Your task to perform on an android device: Find coffee shops on Maps Image 0: 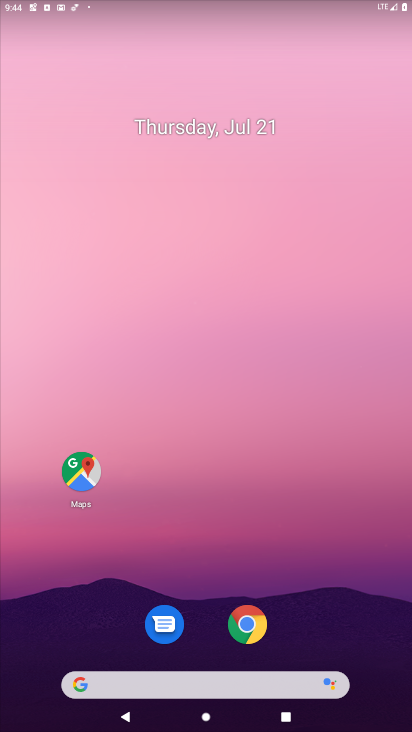
Step 0: click (90, 460)
Your task to perform on an android device: Find coffee shops on Maps Image 1: 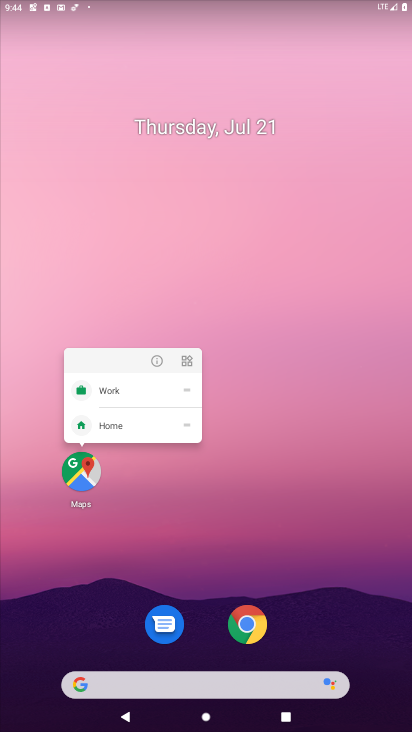
Step 1: click (85, 457)
Your task to perform on an android device: Find coffee shops on Maps Image 2: 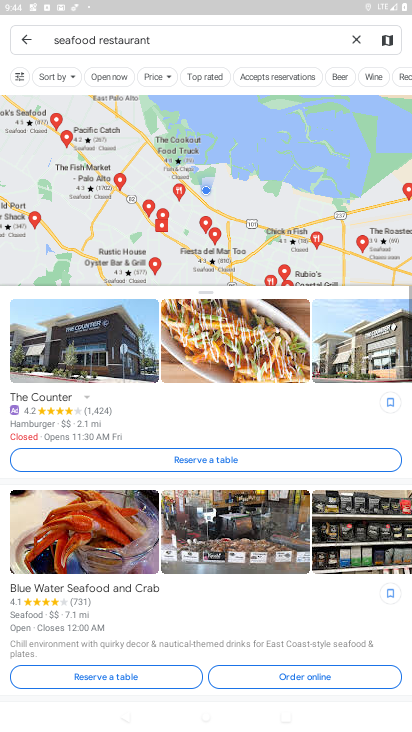
Step 2: click (359, 41)
Your task to perform on an android device: Find coffee shops on Maps Image 3: 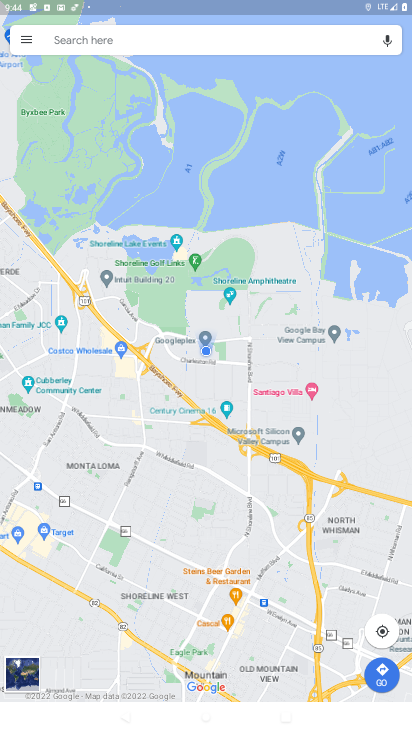
Step 3: click (181, 45)
Your task to perform on an android device: Find coffee shops on Maps Image 4: 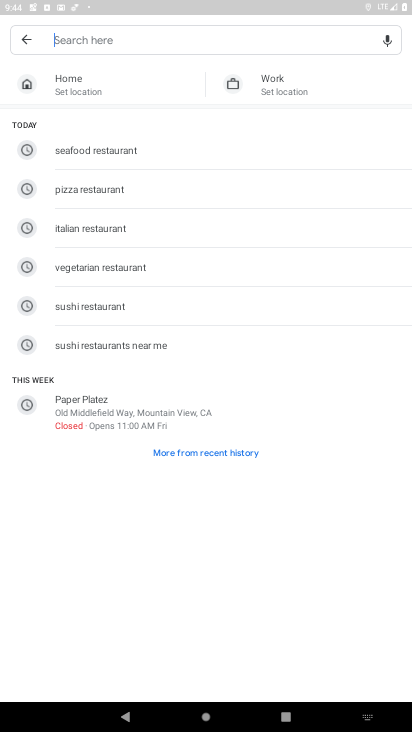
Step 4: type "coffee shops"
Your task to perform on an android device: Find coffee shops on Maps Image 5: 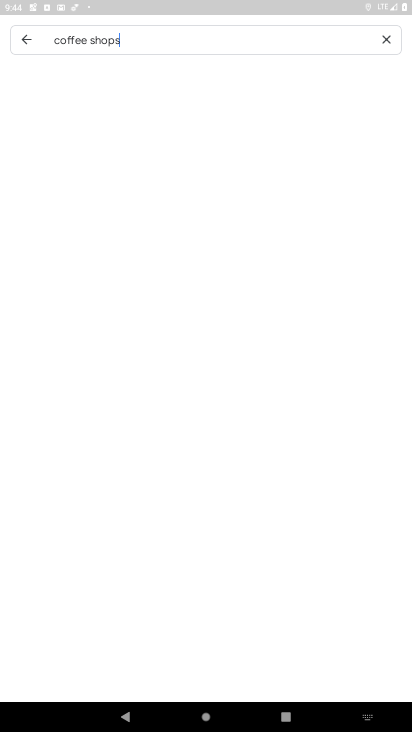
Step 5: type ""
Your task to perform on an android device: Find coffee shops on Maps Image 6: 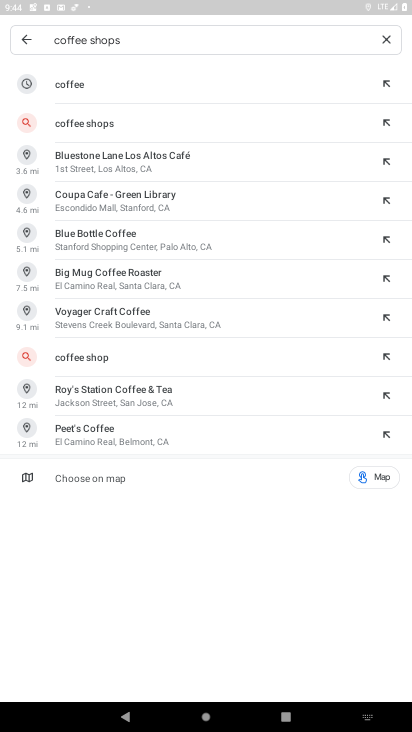
Step 6: click (97, 88)
Your task to perform on an android device: Find coffee shops on Maps Image 7: 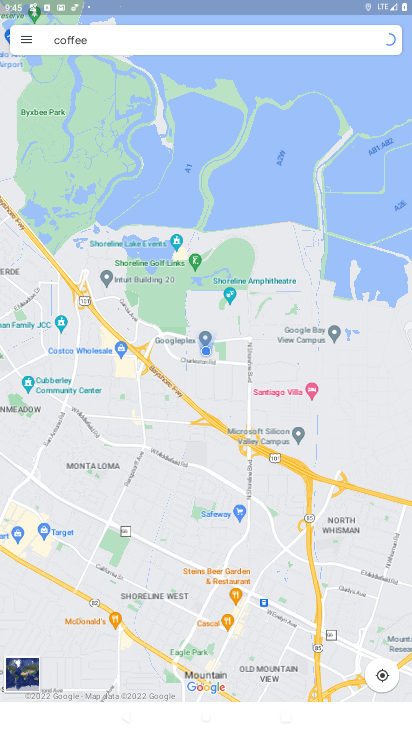
Step 7: task complete